Your task to perform on an android device: delete a single message in the gmail app Image 0: 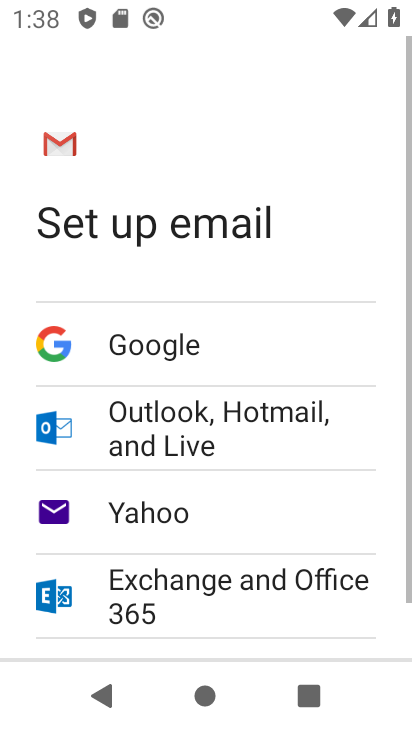
Step 0: press home button
Your task to perform on an android device: delete a single message in the gmail app Image 1: 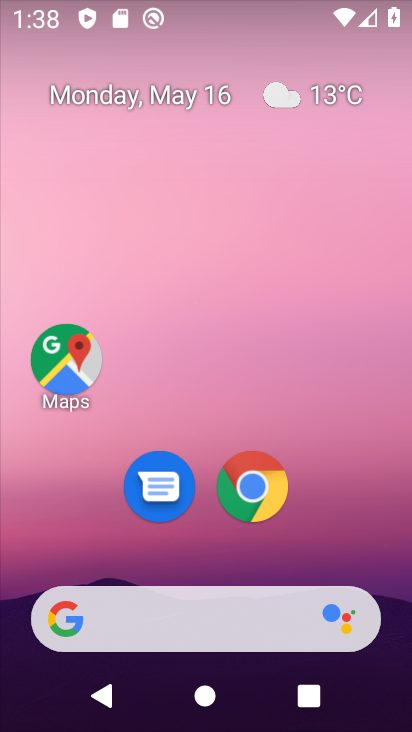
Step 1: drag from (331, 531) to (344, 0)
Your task to perform on an android device: delete a single message in the gmail app Image 2: 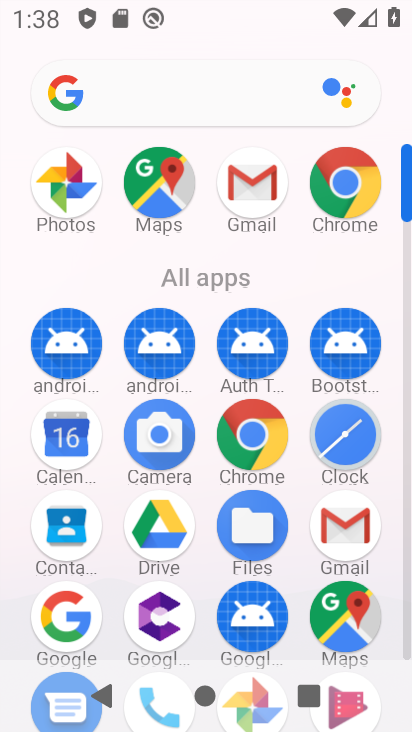
Step 2: click (256, 197)
Your task to perform on an android device: delete a single message in the gmail app Image 3: 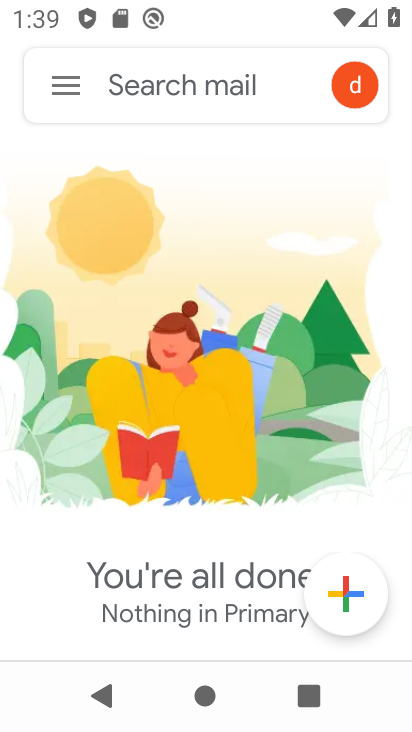
Step 3: click (26, 106)
Your task to perform on an android device: delete a single message in the gmail app Image 4: 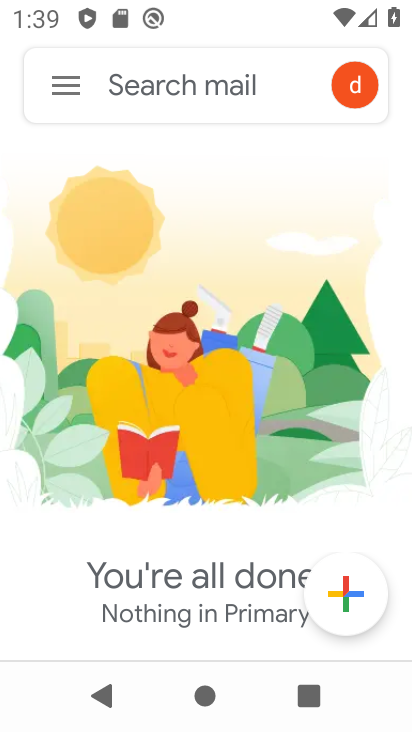
Step 4: click (67, 88)
Your task to perform on an android device: delete a single message in the gmail app Image 5: 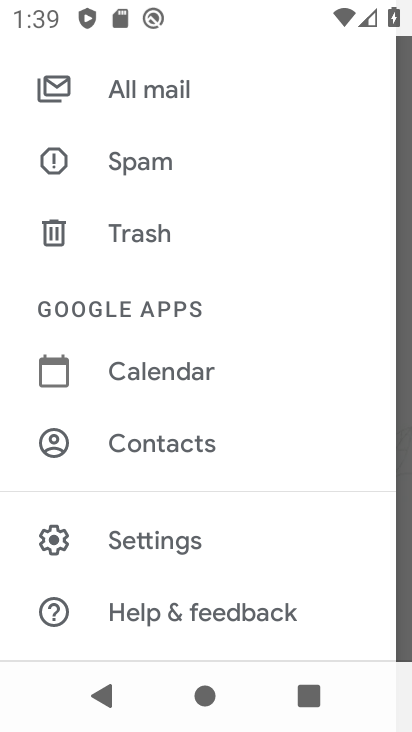
Step 5: click (202, 154)
Your task to perform on an android device: delete a single message in the gmail app Image 6: 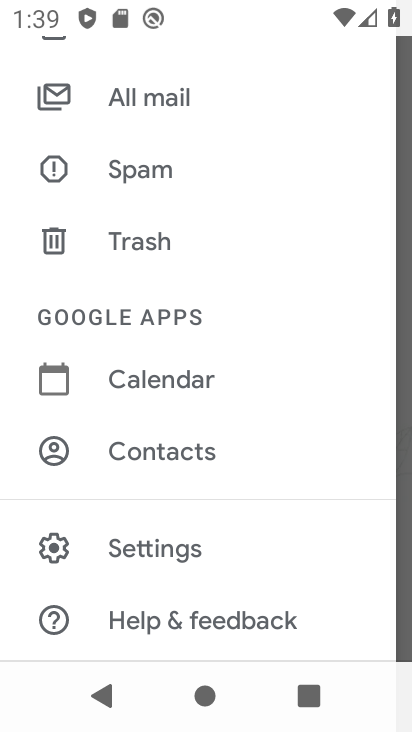
Step 6: click (148, 110)
Your task to perform on an android device: delete a single message in the gmail app Image 7: 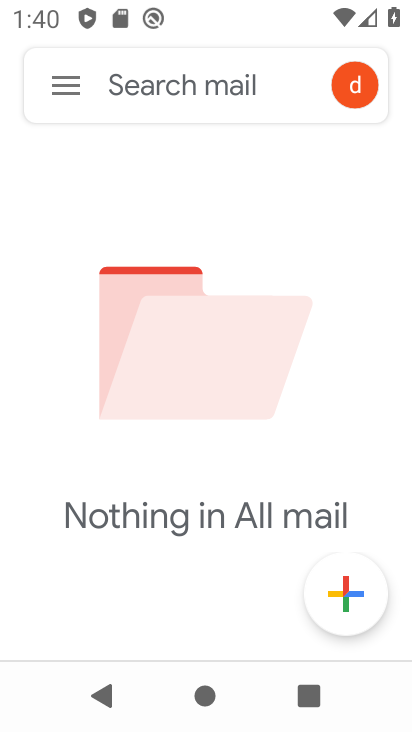
Step 7: task complete